Your task to perform on an android device: Open Chrome and go to the settings page Image 0: 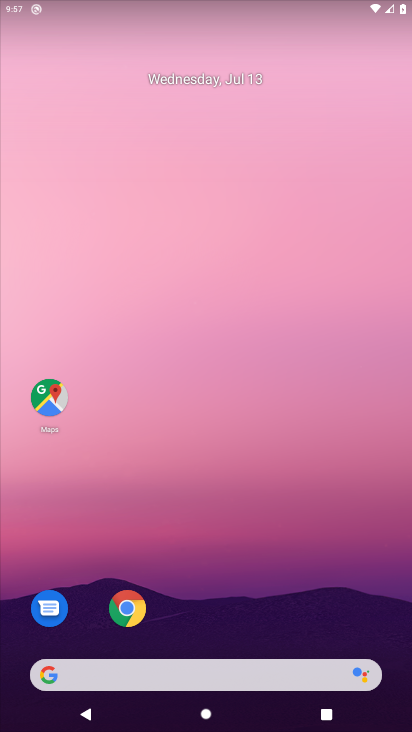
Step 0: click (128, 624)
Your task to perform on an android device: Open Chrome and go to the settings page Image 1: 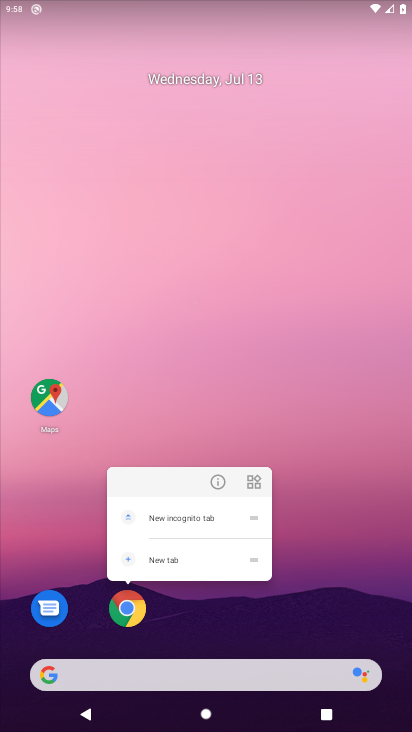
Step 1: click (130, 612)
Your task to perform on an android device: Open Chrome and go to the settings page Image 2: 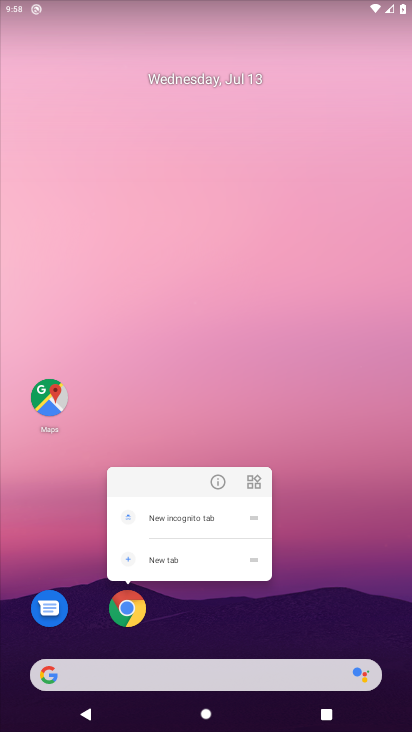
Step 2: task complete